Your task to perform on an android device: turn on wifi Image 0: 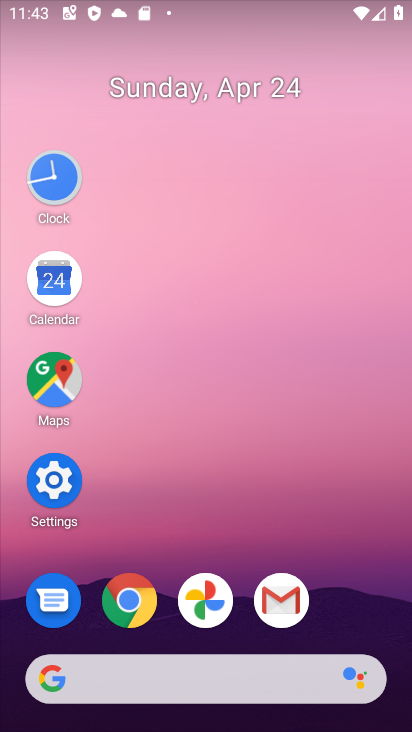
Step 0: click (54, 489)
Your task to perform on an android device: turn on wifi Image 1: 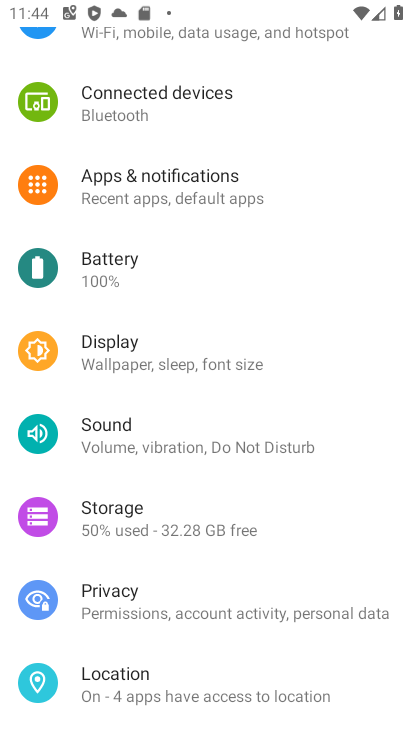
Step 1: drag from (217, 114) to (404, 492)
Your task to perform on an android device: turn on wifi Image 2: 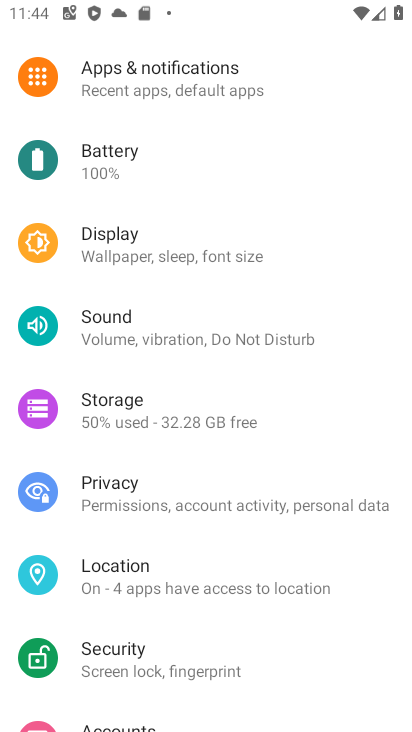
Step 2: drag from (183, 143) to (301, 725)
Your task to perform on an android device: turn on wifi Image 3: 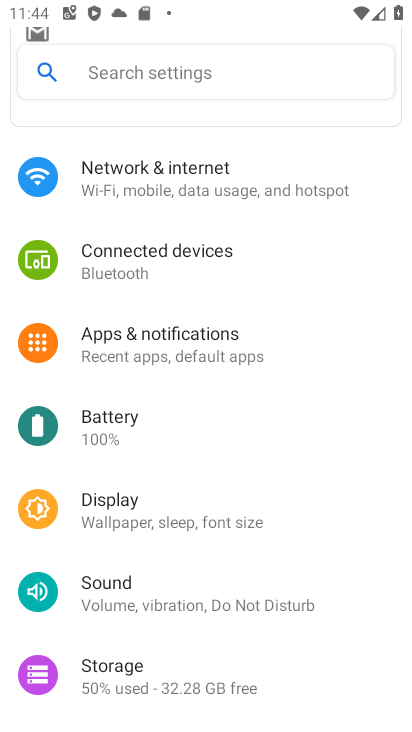
Step 3: click (177, 168)
Your task to perform on an android device: turn on wifi Image 4: 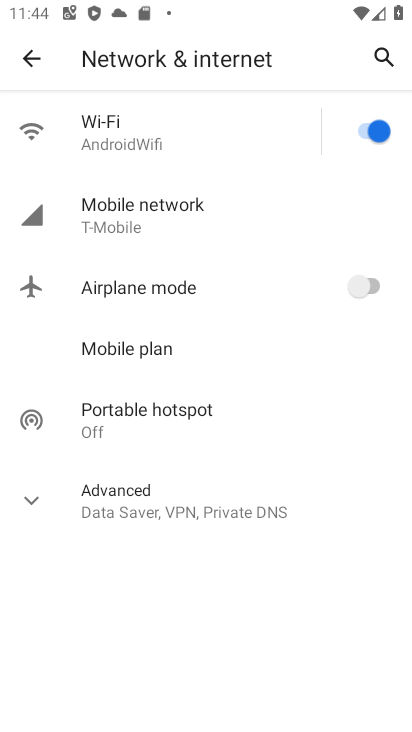
Step 4: task complete